Your task to perform on an android device: turn off picture-in-picture Image 0: 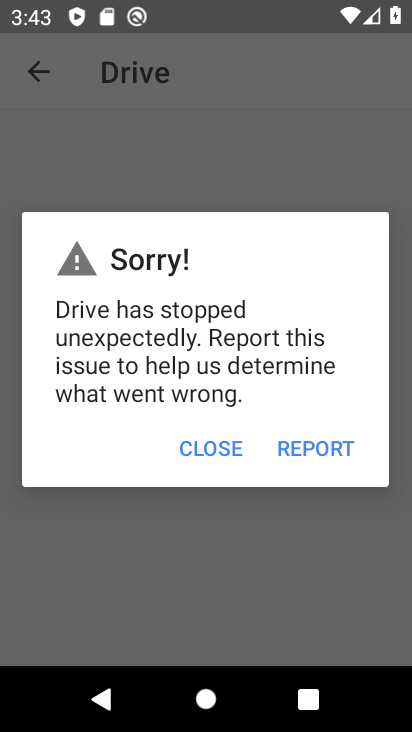
Step 0: press home button
Your task to perform on an android device: turn off picture-in-picture Image 1: 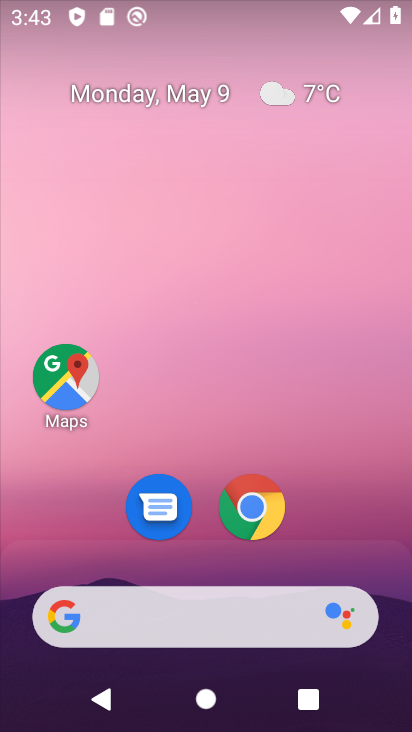
Step 1: drag from (286, 708) to (108, 100)
Your task to perform on an android device: turn off picture-in-picture Image 2: 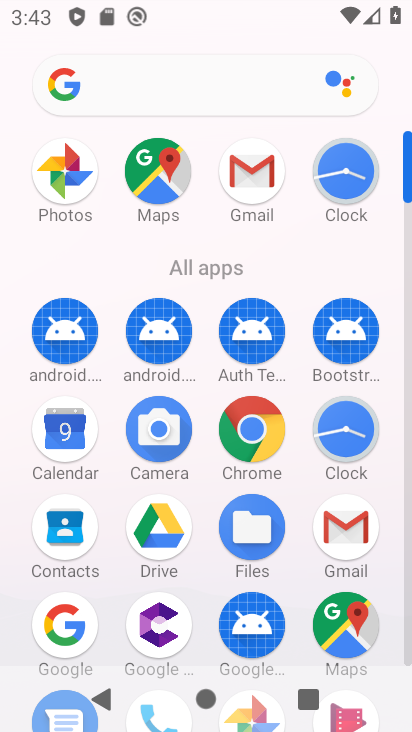
Step 2: drag from (114, 564) to (109, 337)
Your task to perform on an android device: turn off picture-in-picture Image 3: 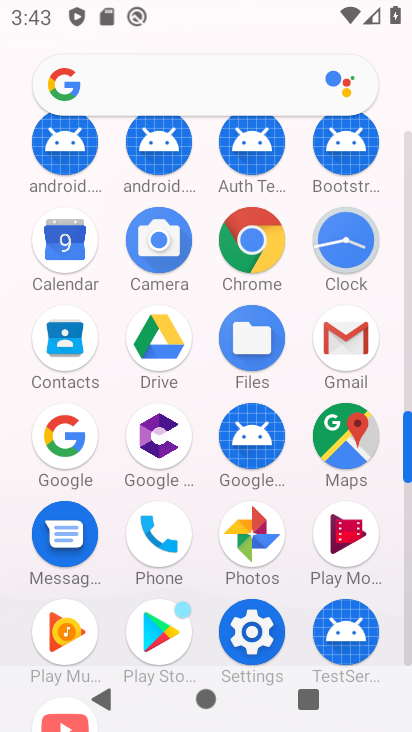
Step 3: click (259, 641)
Your task to perform on an android device: turn off picture-in-picture Image 4: 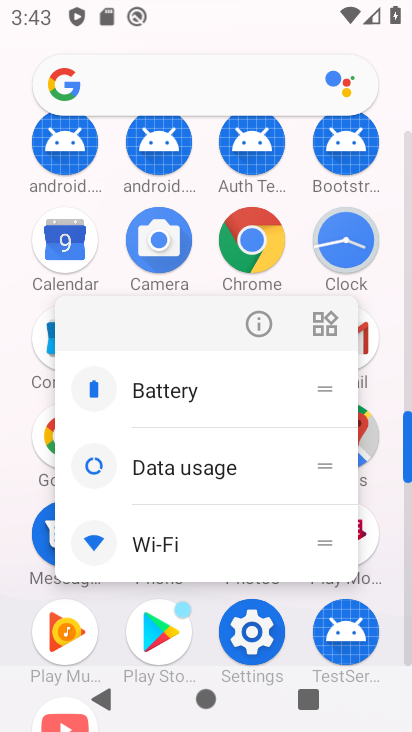
Step 4: click (257, 640)
Your task to perform on an android device: turn off picture-in-picture Image 5: 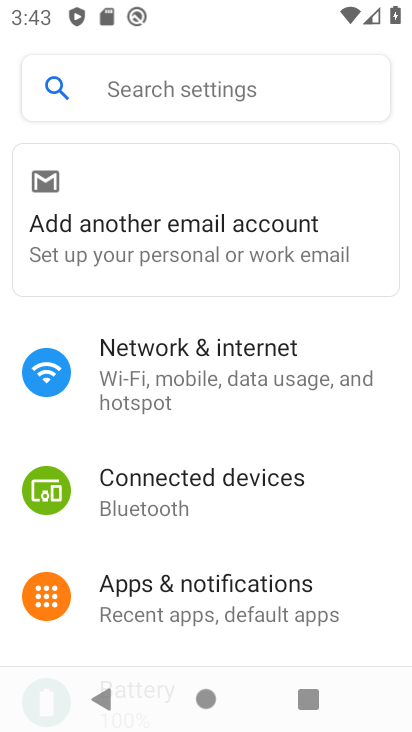
Step 5: click (194, 93)
Your task to perform on an android device: turn off picture-in-picture Image 6: 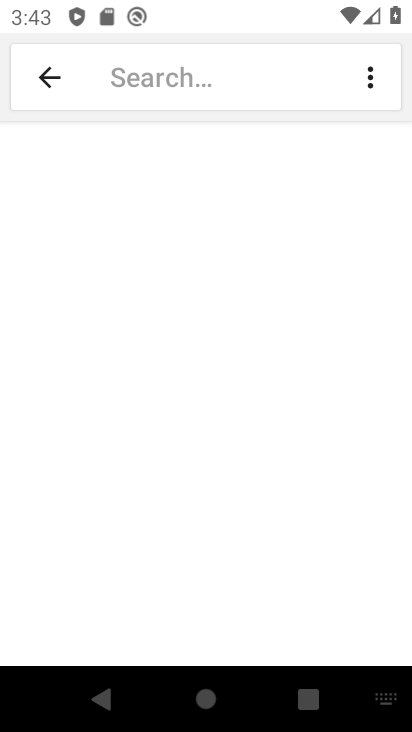
Step 6: drag from (385, 695) to (403, 629)
Your task to perform on an android device: turn off picture-in-picture Image 7: 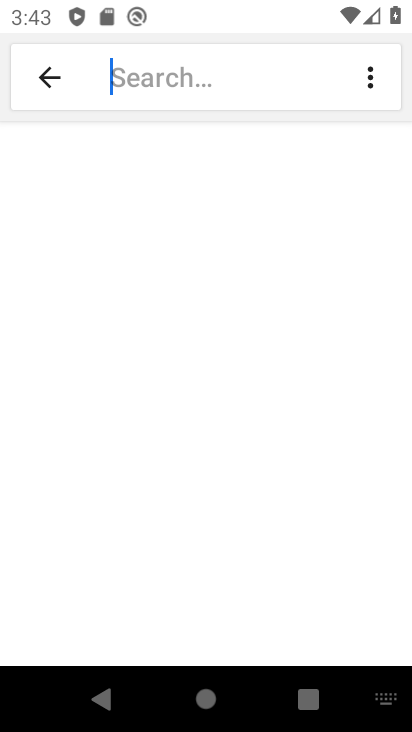
Step 7: click (379, 693)
Your task to perform on an android device: turn off picture-in-picture Image 8: 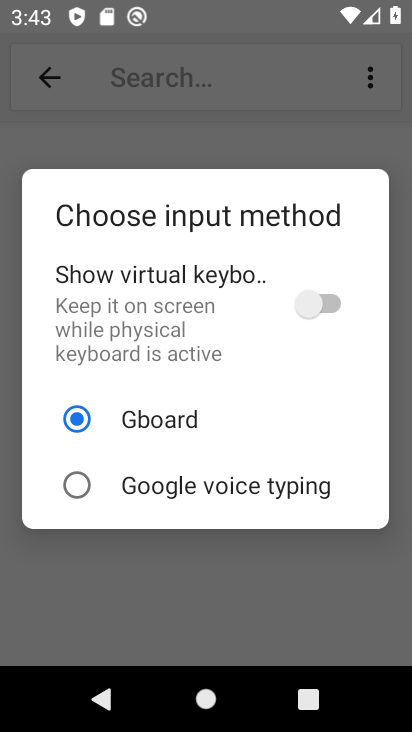
Step 8: click (317, 310)
Your task to perform on an android device: turn off picture-in-picture Image 9: 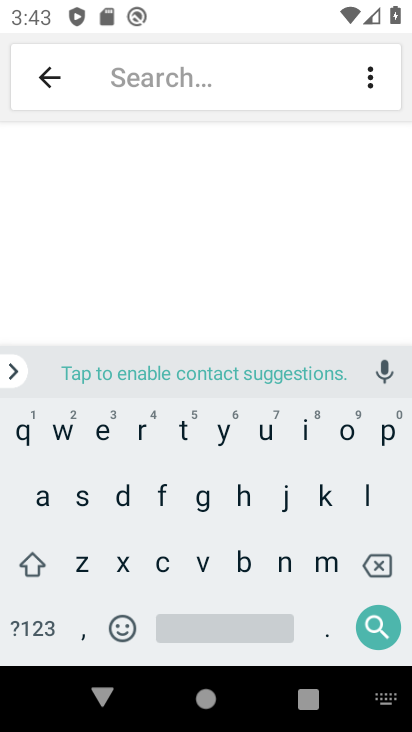
Step 9: click (386, 435)
Your task to perform on an android device: turn off picture-in-picture Image 10: 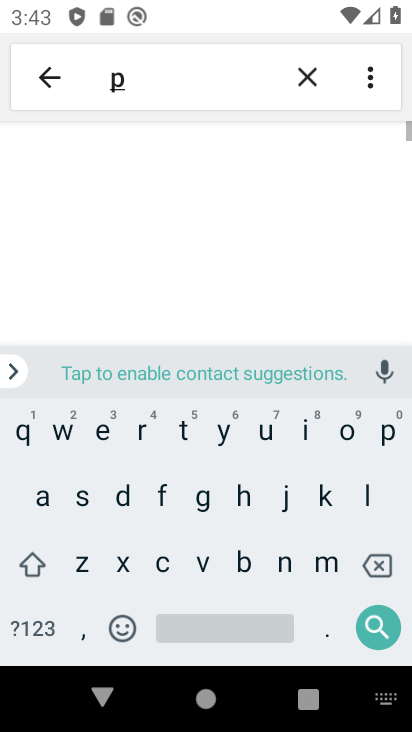
Step 10: click (301, 434)
Your task to perform on an android device: turn off picture-in-picture Image 11: 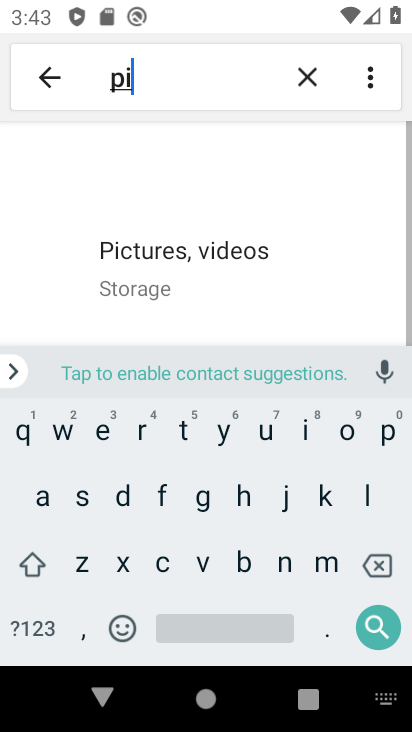
Step 11: click (154, 563)
Your task to perform on an android device: turn off picture-in-picture Image 12: 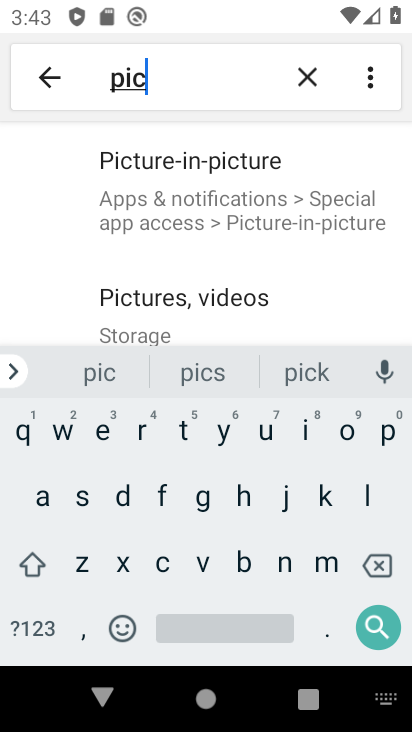
Step 12: click (169, 203)
Your task to perform on an android device: turn off picture-in-picture Image 13: 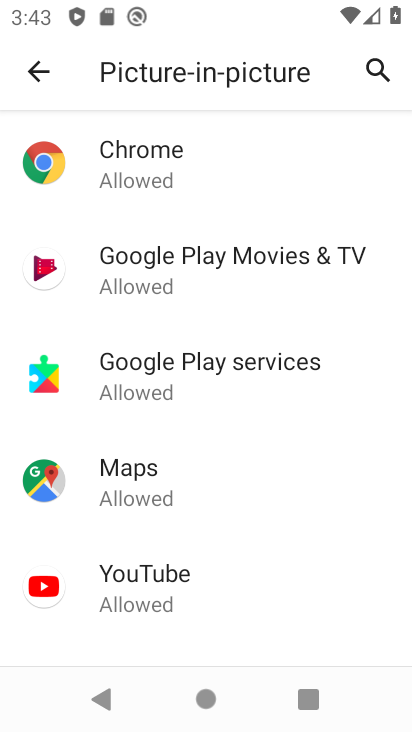
Step 13: click (170, 202)
Your task to perform on an android device: turn off picture-in-picture Image 14: 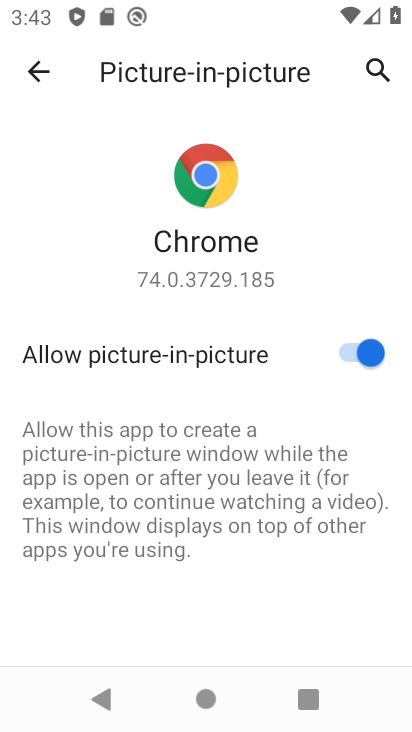
Step 14: click (32, 61)
Your task to perform on an android device: turn off picture-in-picture Image 15: 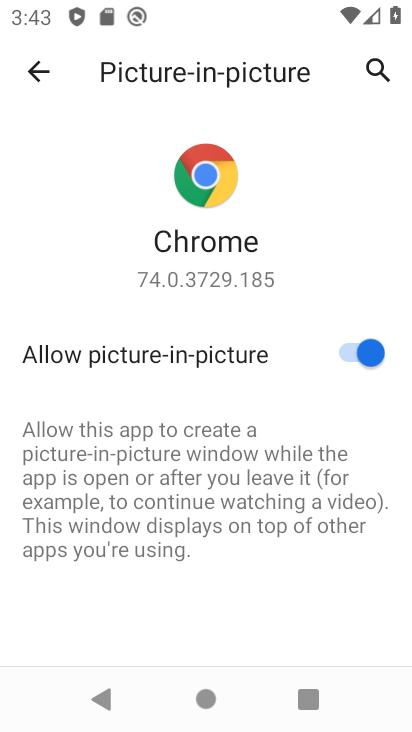
Step 15: task complete